Your task to perform on an android device: toggle improve location accuracy Image 0: 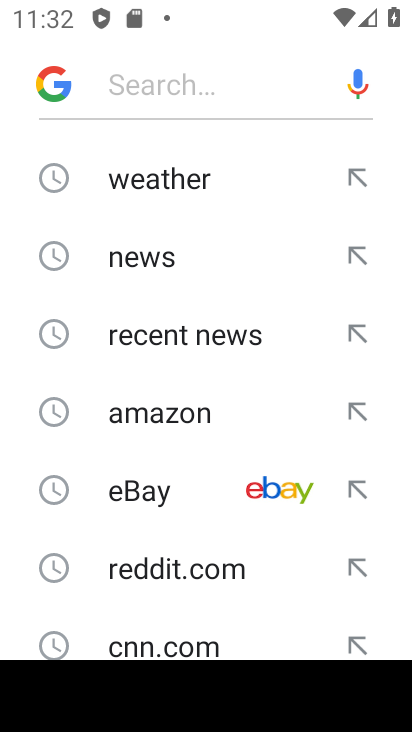
Step 0: press home button
Your task to perform on an android device: toggle improve location accuracy Image 1: 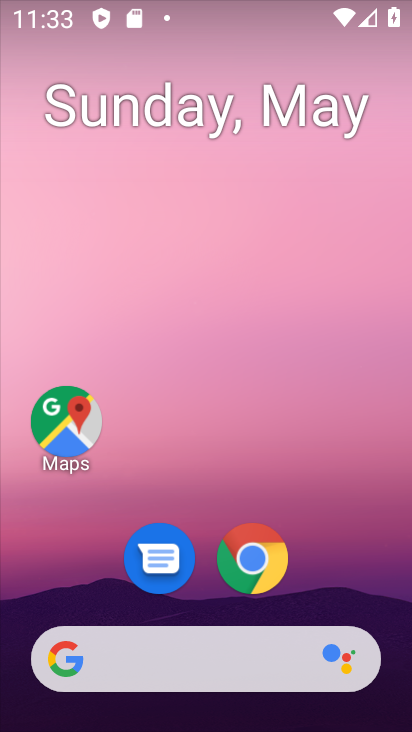
Step 1: drag from (358, 583) to (371, 91)
Your task to perform on an android device: toggle improve location accuracy Image 2: 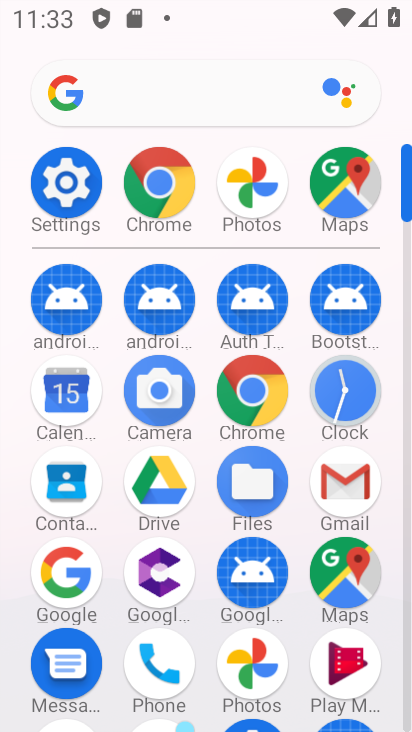
Step 2: click (72, 198)
Your task to perform on an android device: toggle improve location accuracy Image 3: 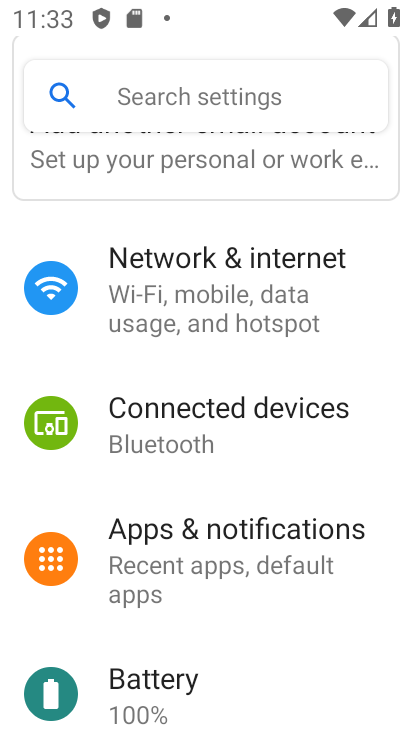
Step 3: drag from (291, 655) to (325, 445)
Your task to perform on an android device: toggle improve location accuracy Image 4: 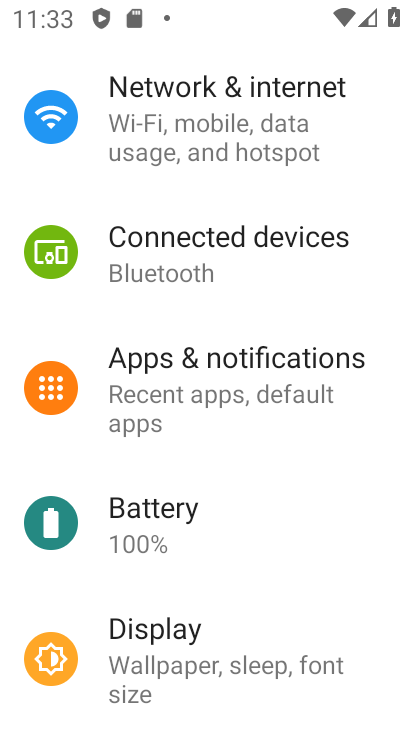
Step 4: drag from (318, 618) to (327, 447)
Your task to perform on an android device: toggle improve location accuracy Image 5: 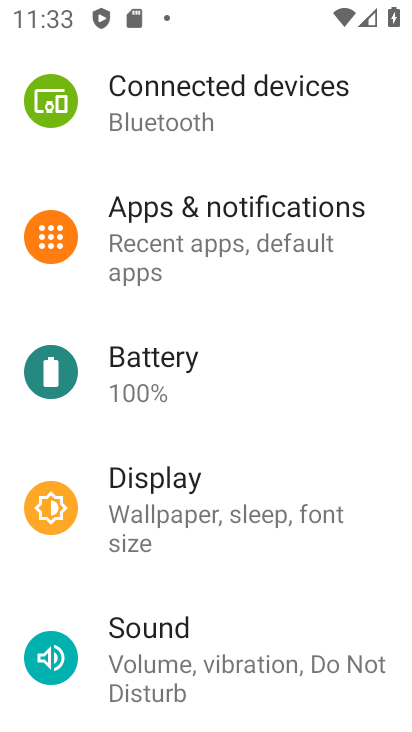
Step 5: drag from (348, 694) to (366, 399)
Your task to perform on an android device: toggle improve location accuracy Image 6: 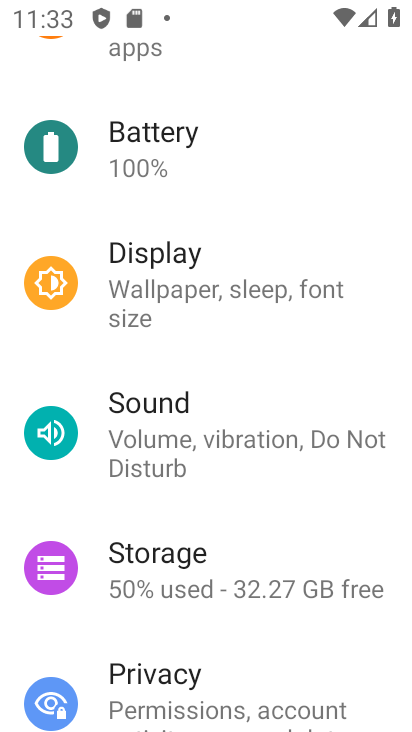
Step 6: drag from (331, 656) to (350, 417)
Your task to perform on an android device: toggle improve location accuracy Image 7: 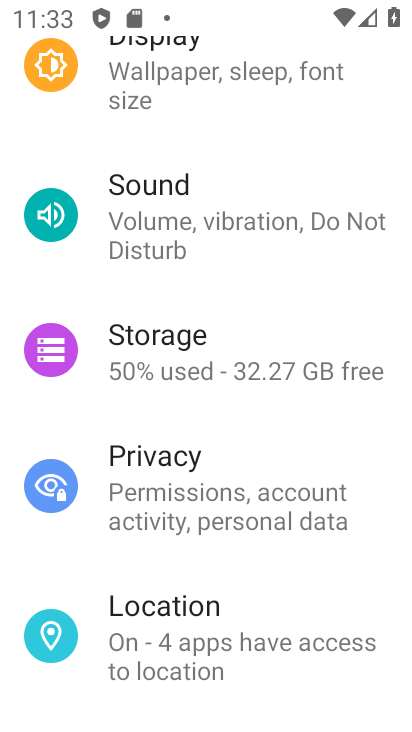
Step 7: click (210, 662)
Your task to perform on an android device: toggle improve location accuracy Image 8: 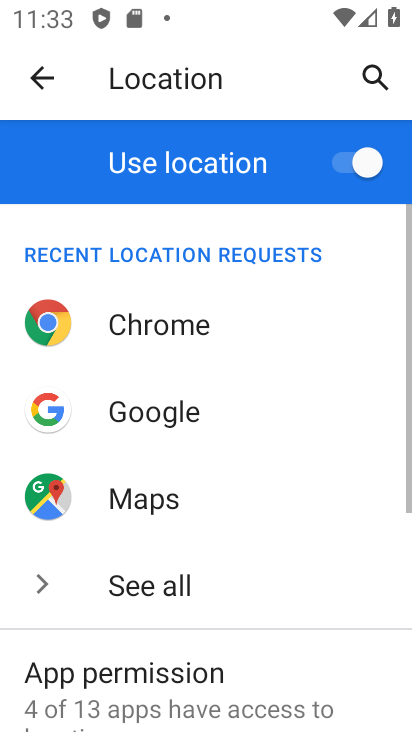
Step 8: drag from (322, 651) to (340, 417)
Your task to perform on an android device: toggle improve location accuracy Image 9: 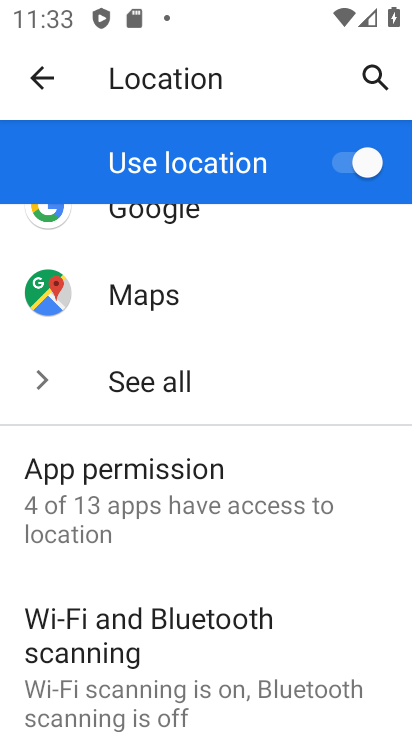
Step 9: drag from (341, 639) to (350, 418)
Your task to perform on an android device: toggle improve location accuracy Image 10: 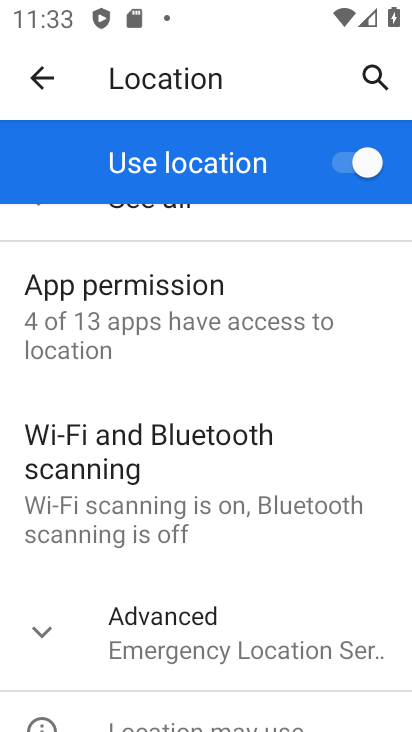
Step 10: click (215, 634)
Your task to perform on an android device: toggle improve location accuracy Image 11: 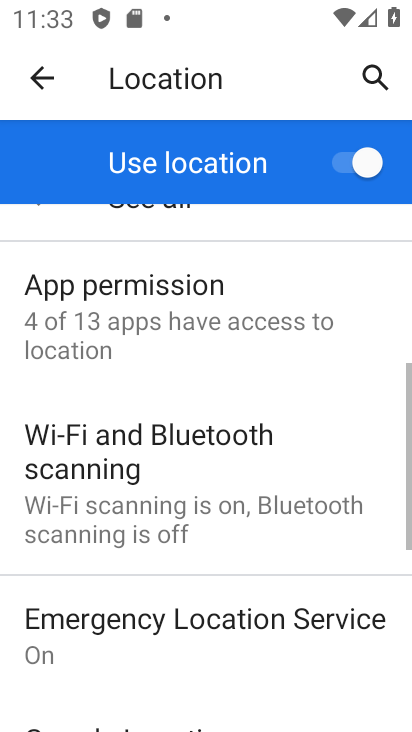
Step 11: drag from (331, 641) to (341, 387)
Your task to perform on an android device: toggle improve location accuracy Image 12: 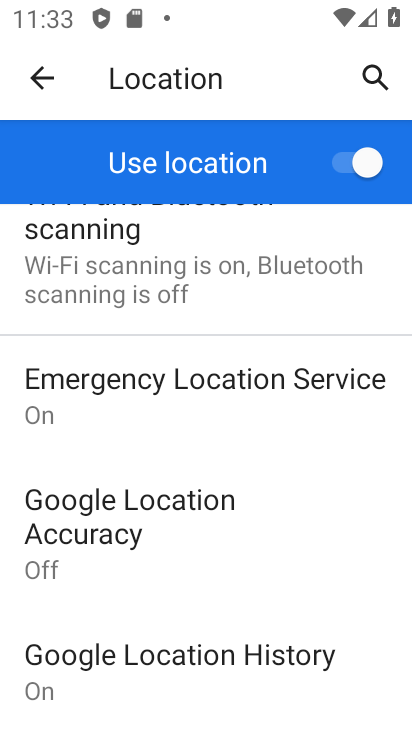
Step 12: click (96, 530)
Your task to perform on an android device: toggle improve location accuracy Image 13: 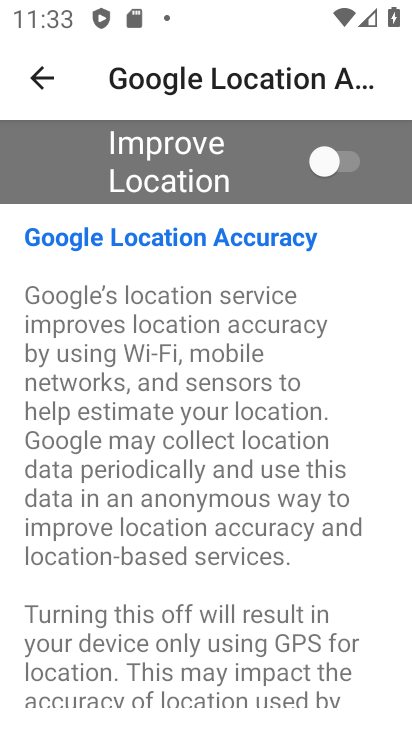
Step 13: click (312, 171)
Your task to perform on an android device: toggle improve location accuracy Image 14: 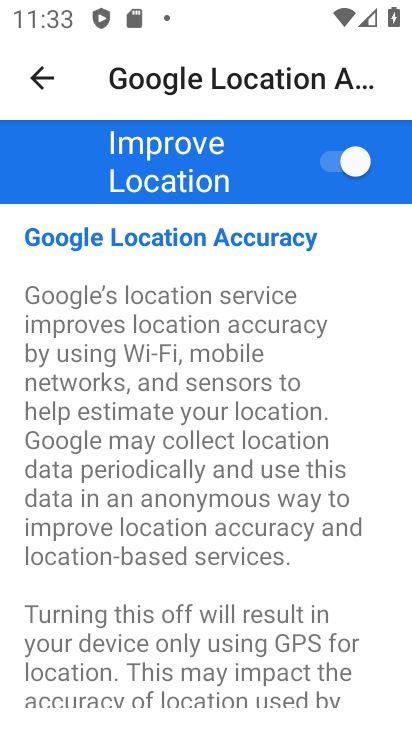
Step 14: task complete